Your task to perform on an android device: delete the emails in spam in the gmail app Image 0: 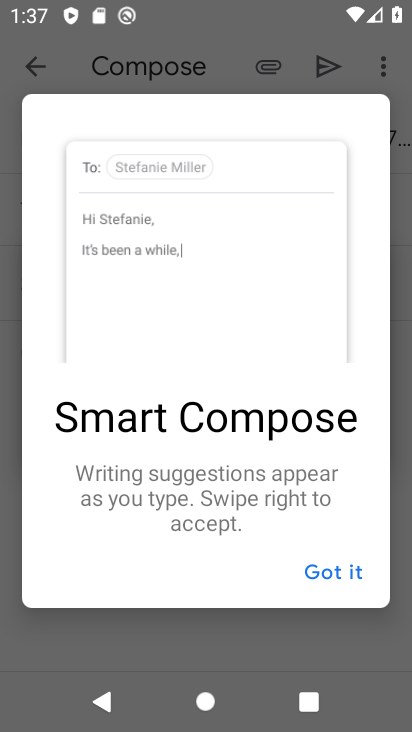
Step 0: press home button
Your task to perform on an android device: delete the emails in spam in the gmail app Image 1: 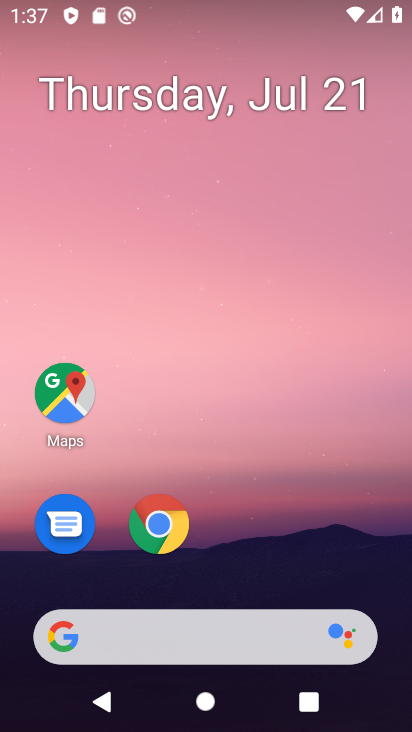
Step 1: drag from (259, 547) to (285, 104)
Your task to perform on an android device: delete the emails in spam in the gmail app Image 2: 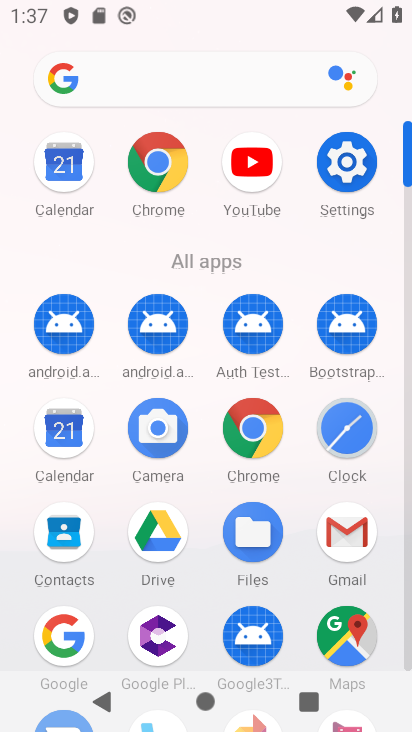
Step 2: click (348, 532)
Your task to perform on an android device: delete the emails in spam in the gmail app Image 3: 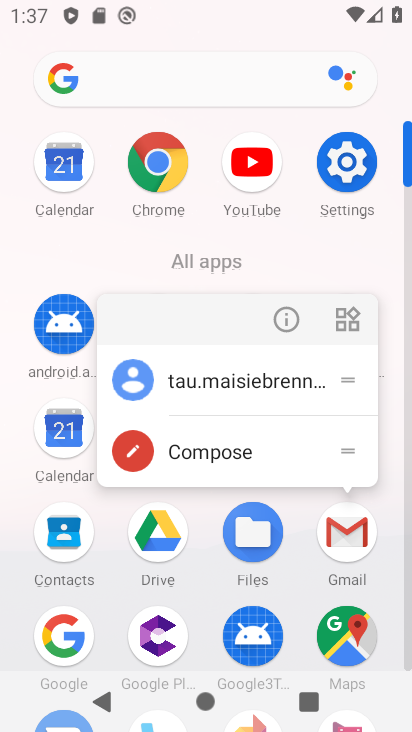
Step 3: click (348, 531)
Your task to perform on an android device: delete the emails in spam in the gmail app Image 4: 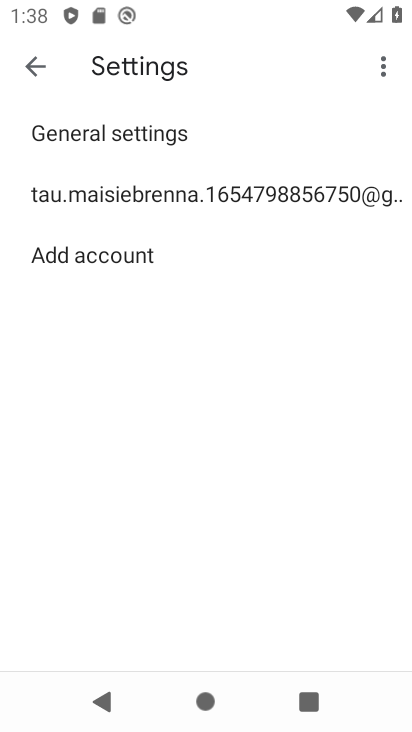
Step 4: click (42, 73)
Your task to perform on an android device: delete the emails in spam in the gmail app Image 5: 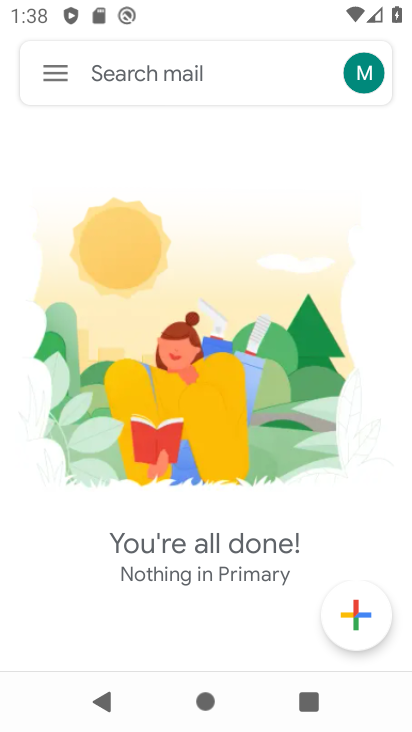
Step 5: click (49, 77)
Your task to perform on an android device: delete the emails in spam in the gmail app Image 6: 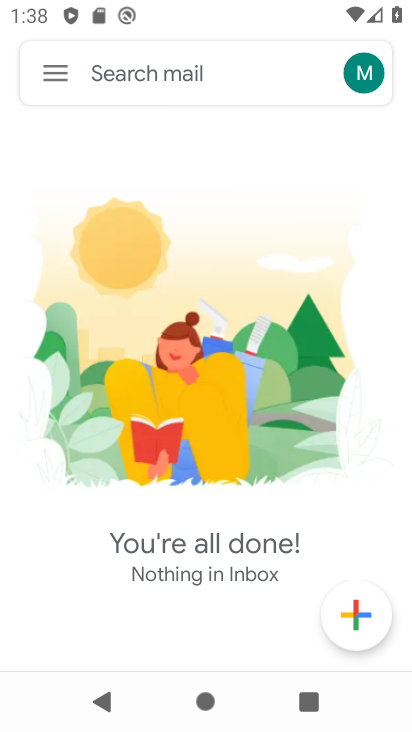
Step 6: click (54, 79)
Your task to perform on an android device: delete the emails in spam in the gmail app Image 7: 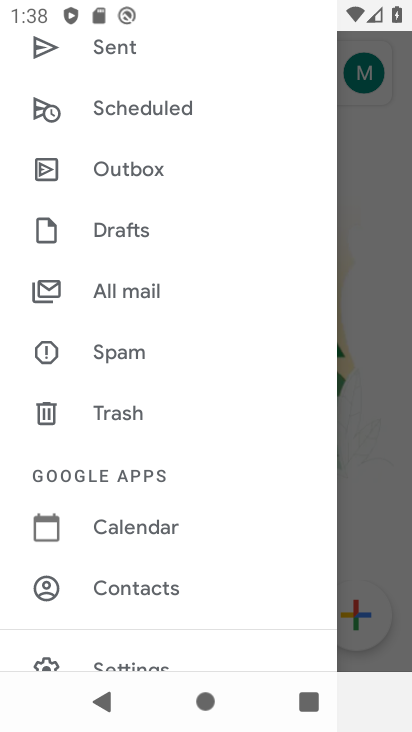
Step 7: click (140, 351)
Your task to perform on an android device: delete the emails in spam in the gmail app Image 8: 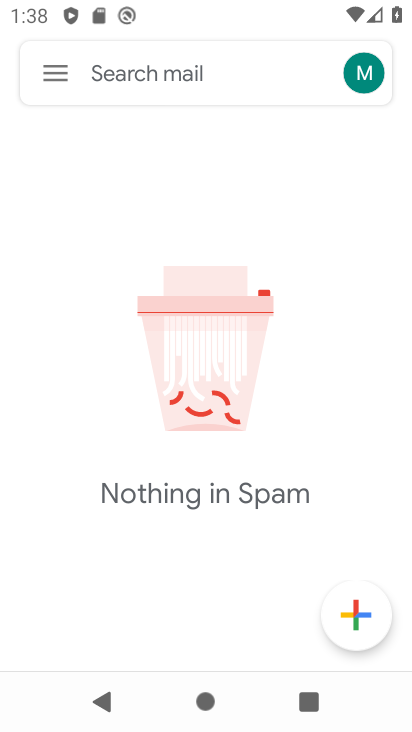
Step 8: task complete